Your task to perform on an android device: turn on notifications settings in the gmail app Image 0: 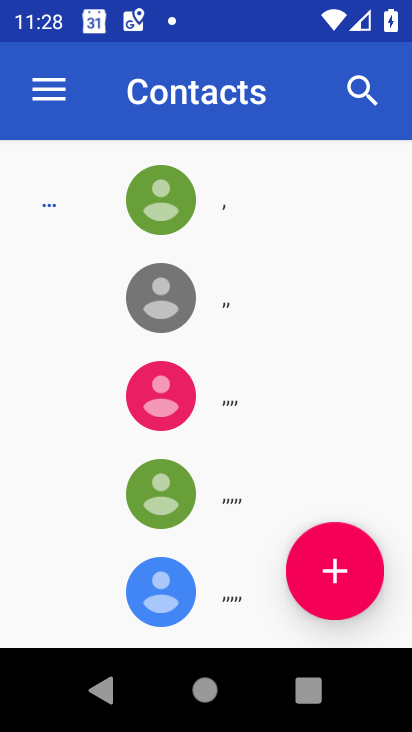
Step 0: press home button
Your task to perform on an android device: turn on notifications settings in the gmail app Image 1: 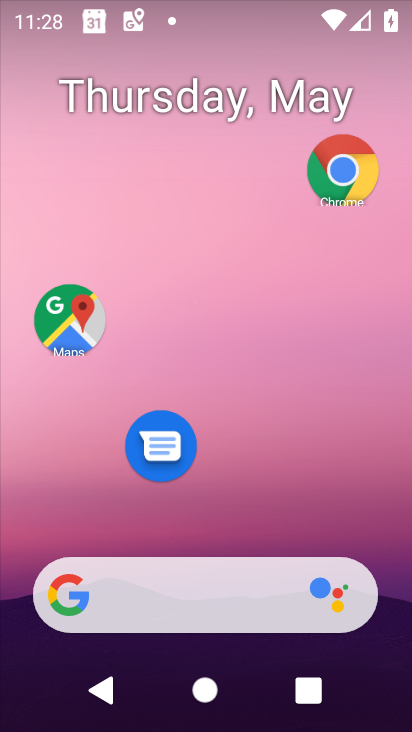
Step 1: drag from (236, 503) to (313, 5)
Your task to perform on an android device: turn on notifications settings in the gmail app Image 2: 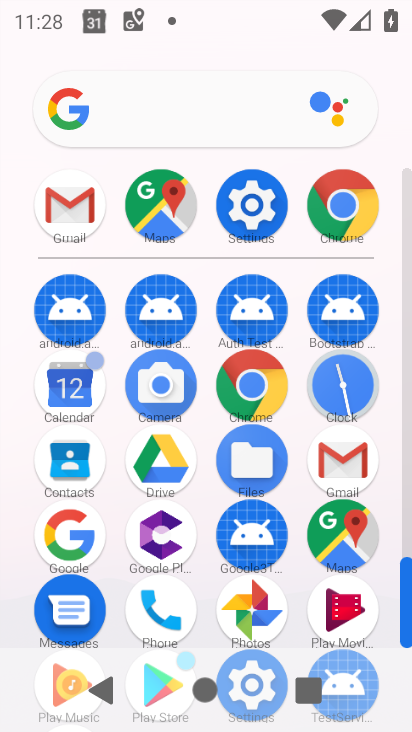
Step 2: click (366, 458)
Your task to perform on an android device: turn on notifications settings in the gmail app Image 3: 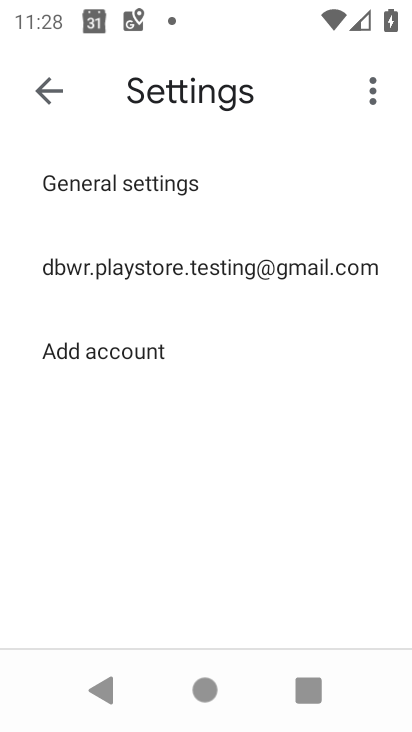
Step 3: press back button
Your task to perform on an android device: turn on notifications settings in the gmail app Image 4: 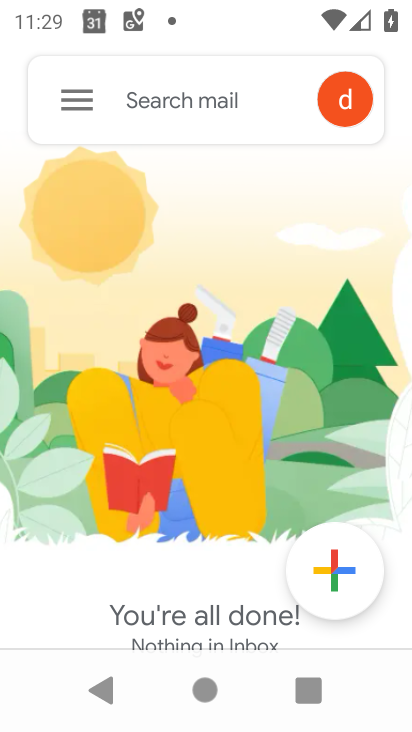
Step 4: click (67, 96)
Your task to perform on an android device: turn on notifications settings in the gmail app Image 5: 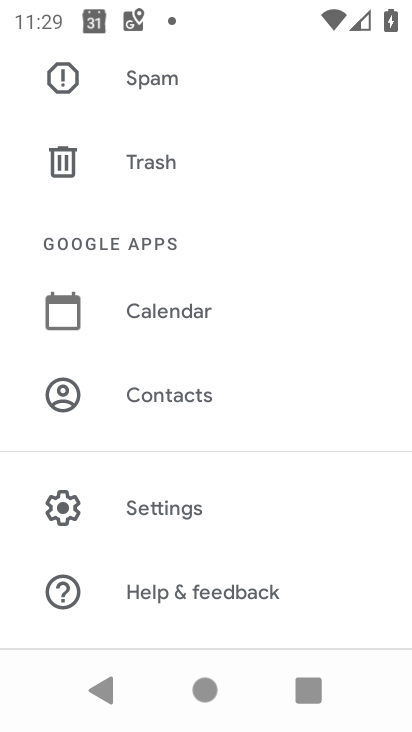
Step 5: click (208, 513)
Your task to perform on an android device: turn on notifications settings in the gmail app Image 6: 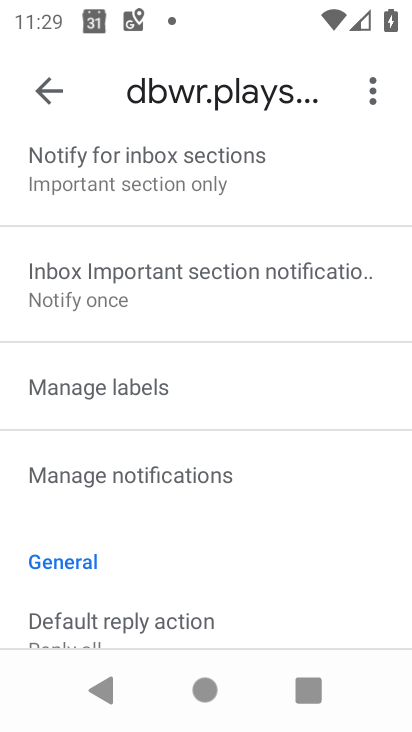
Step 6: click (245, 464)
Your task to perform on an android device: turn on notifications settings in the gmail app Image 7: 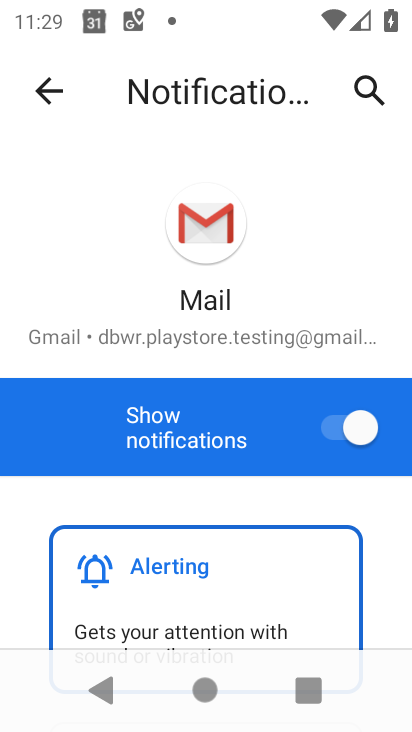
Step 7: task complete